Your task to perform on an android device: Go to privacy settings Image 0: 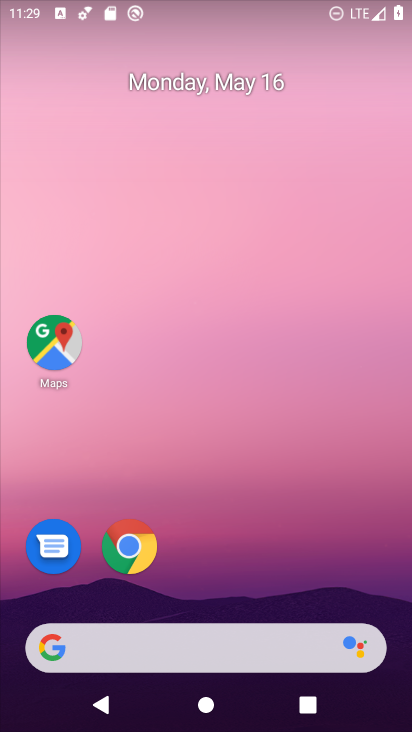
Step 0: drag from (147, 592) to (197, 208)
Your task to perform on an android device: Go to privacy settings Image 1: 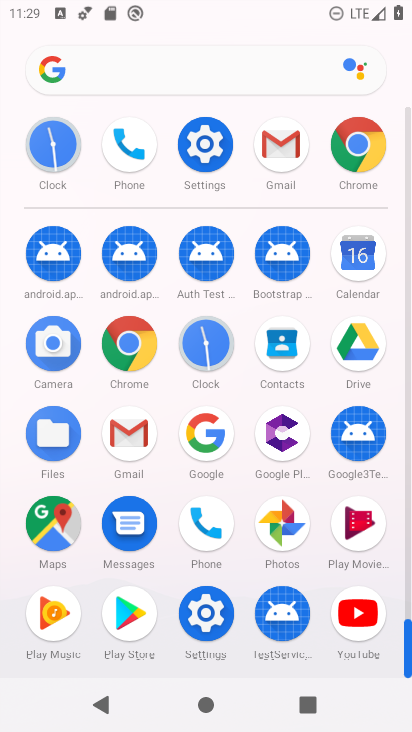
Step 1: click (206, 146)
Your task to perform on an android device: Go to privacy settings Image 2: 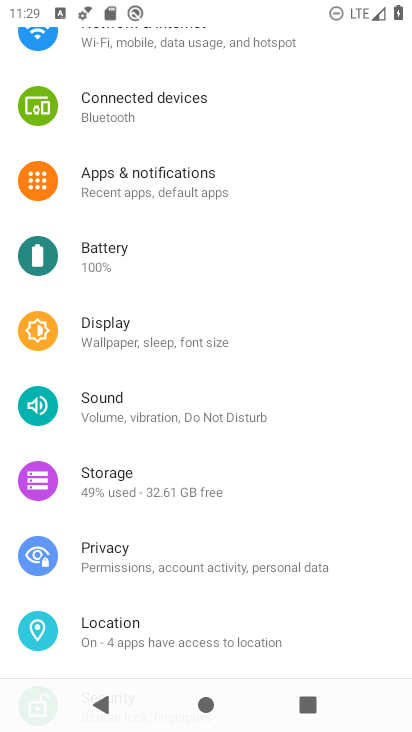
Step 2: click (120, 554)
Your task to perform on an android device: Go to privacy settings Image 3: 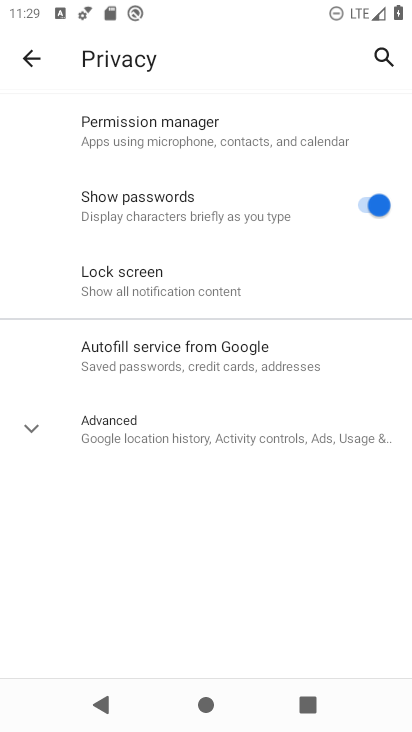
Step 3: task complete